Your task to perform on an android device: turn smart compose on in the gmail app Image 0: 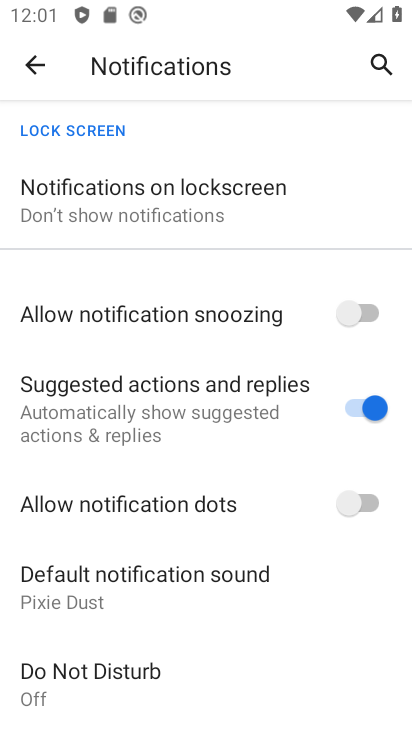
Step 0: press back button
Your task to perform on an android device: turn smart compose on in the gmail app Image 1: 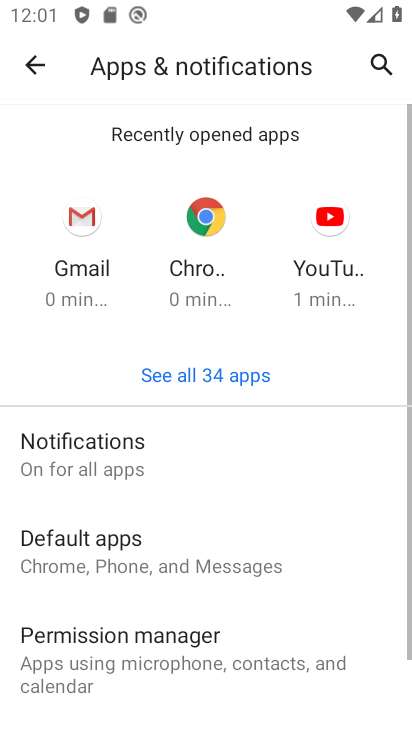
Step 1: press back button
Your task to perform on an android device: turn smart compose on in the gmail app Image 2: 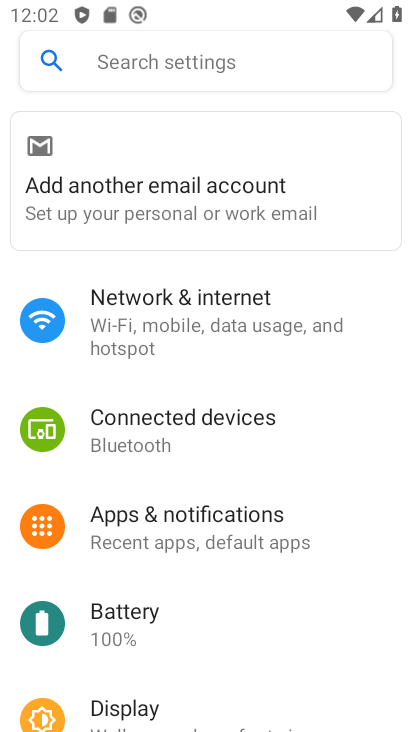
Step 2: press back button
Your task to perform on an android device: turn smart compose on in the gmail app Image 3: 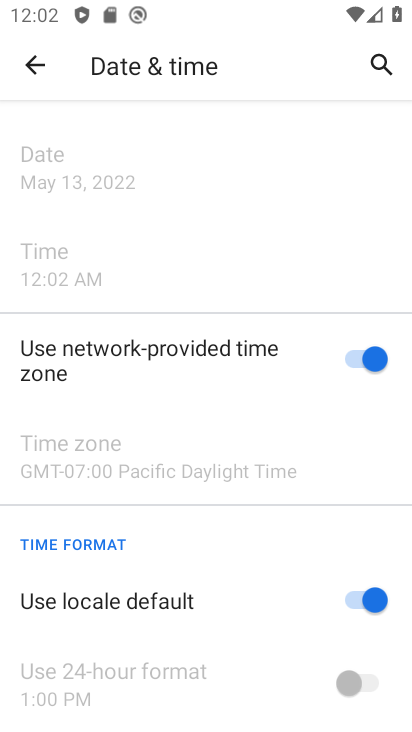
Step 3: press back button
Your task to perform on an android device: turn smart compose on in the gmail app Image 4: 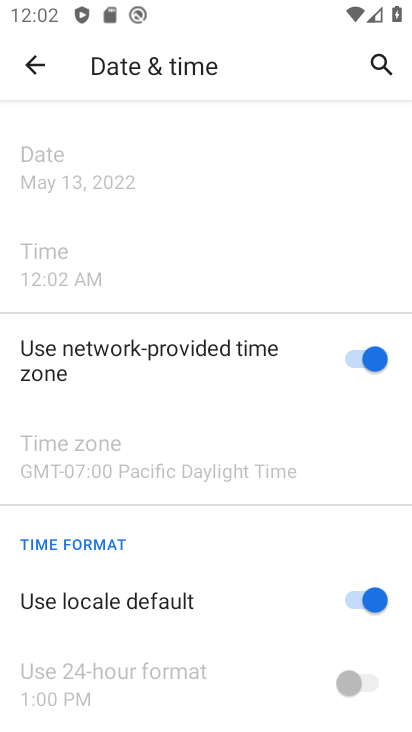
Step 4: press back button
Your task to perform on an android device: turn smart compose on in the gmail app Image 5: 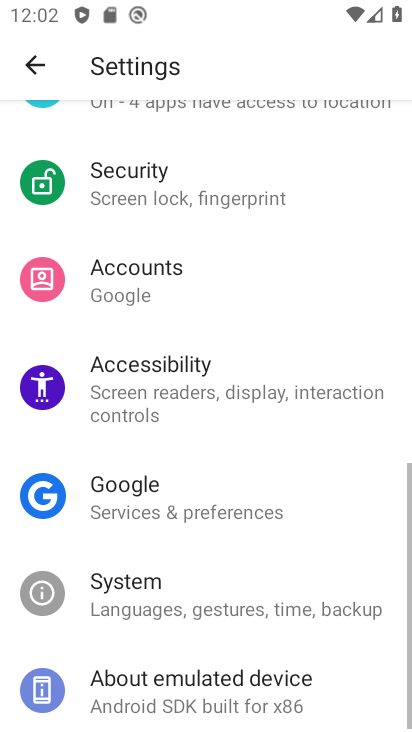
Step 5: press back button
Your task to perform on an android device: turn smart compose on in the gmail app Image 6: 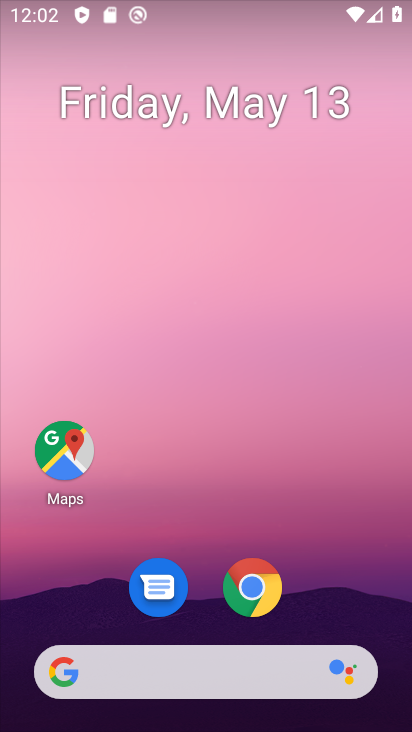
Step 6: drag from (207, 491) to (259, 110)
Your task to perform on an android device: turn smart compose on in the gmail app Image 7: 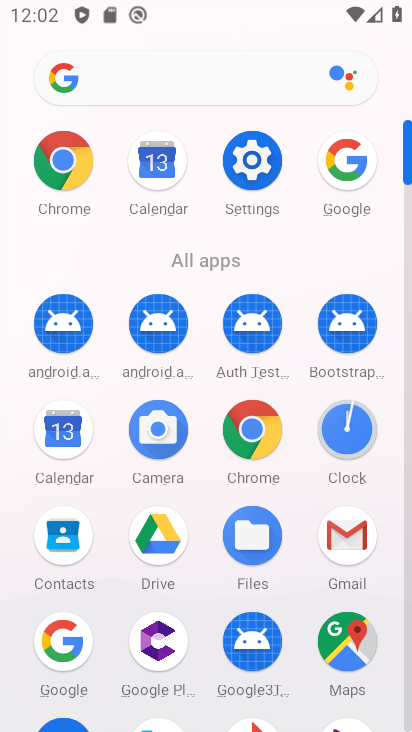
Step 7: click (345, 529)
Your task to perform on an android device: turn smart compose on in the gmail app Image 8: 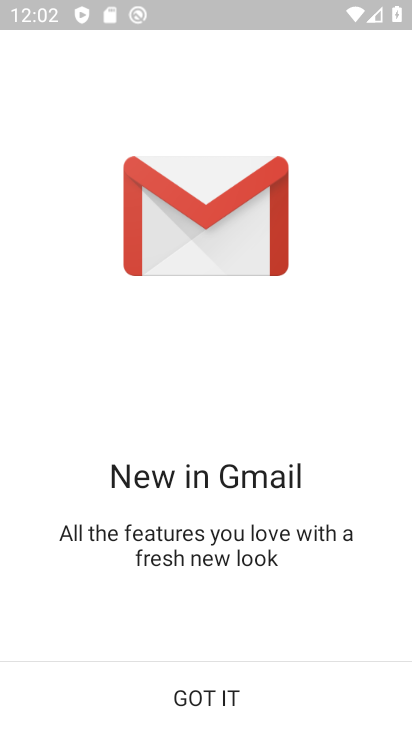
Step 8: click (202, 697)
Your task to perform on an android device: turn smart compose on in the gmail app Image 9: 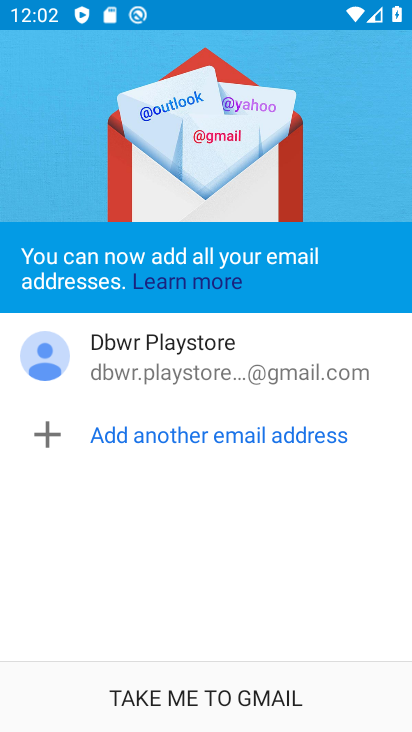
Step 9: click (187, 699)
Your task to perform on an android device: turn smart compose on in the gmail app Image 10: 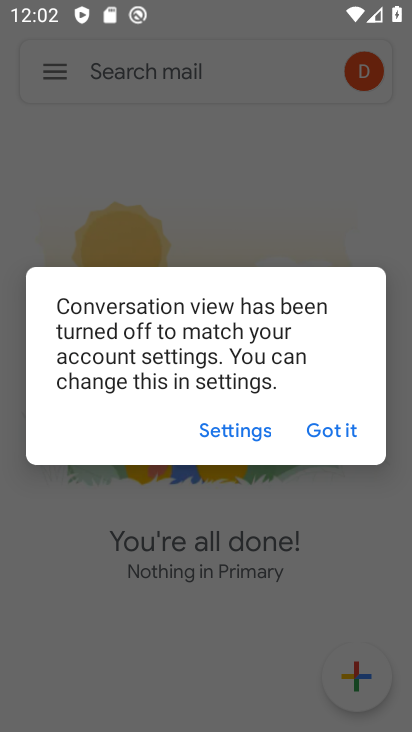
Step 10: click (321, 435)
Your task to perform on an android device: turn smart compose on in the gmail app Image 11: 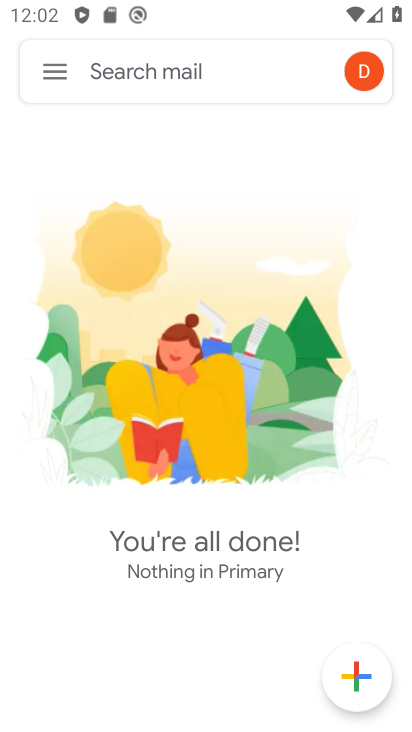
Step 11: click (44, 69)
Your task to perform on an android device: turn smart compose on in the gmail app Image 12: 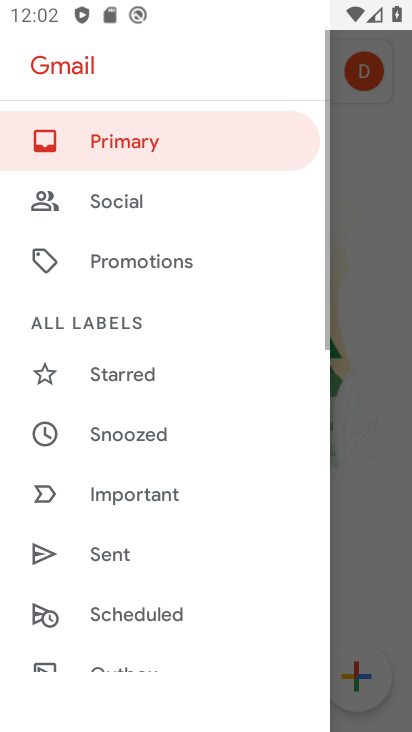
Step 12: drag from (103, 622) to (226, 144)
Your task to perform on an android device: turn smart compose on in the gmail app Image 13: 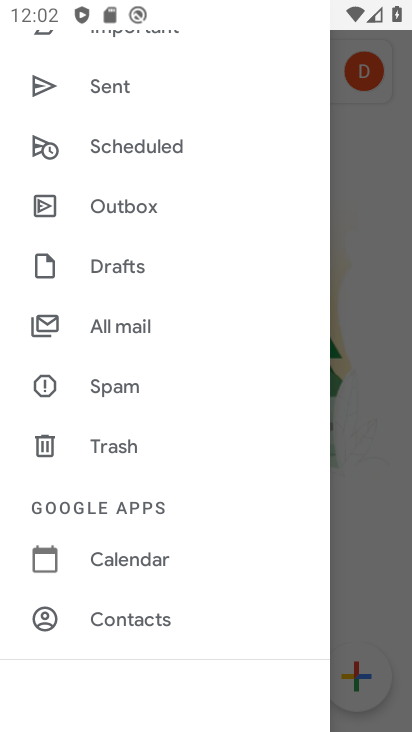
Step 13: drag from (127, 569) to (208, 138)
Your task to perform on an android device: turn smart compose on in the gmail app Image 14: 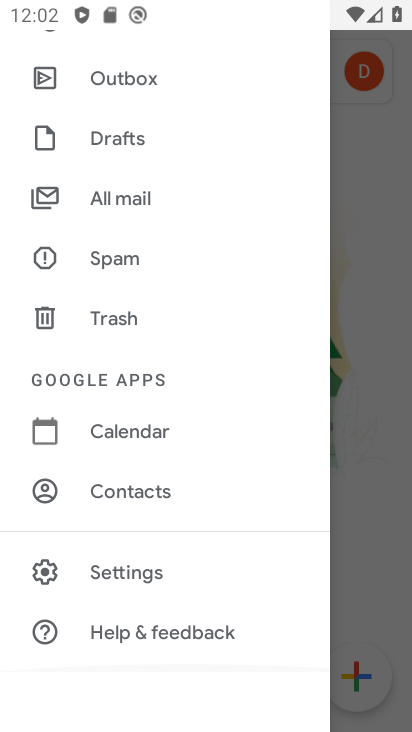
Step 14: click (120, 574)
Your task to perform on an android device: turn smart compose on in the gmail app Image 15: 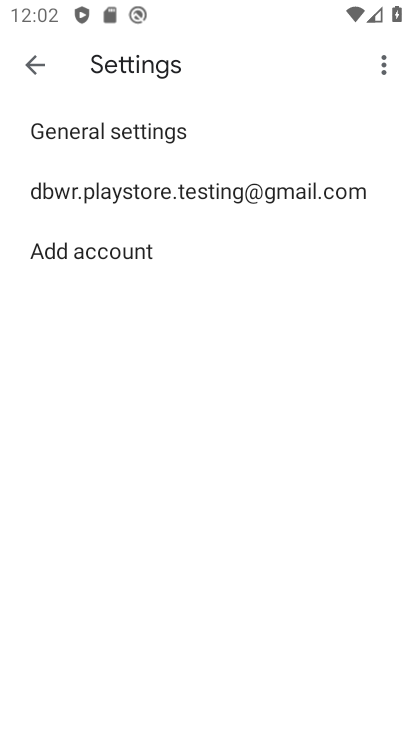
Step 15: click (142, 191)
Your task to perform on an android device: turn smart compose on in the gmail app Image 16: 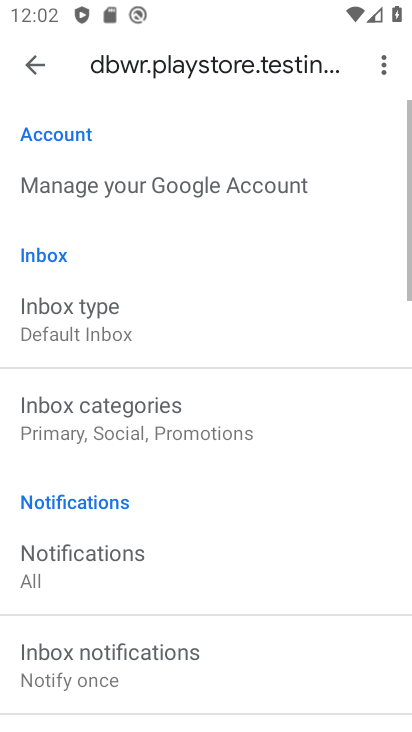
Step 16: task complete